Your task to perform on an android device: Go to Reddit.com Image 0: 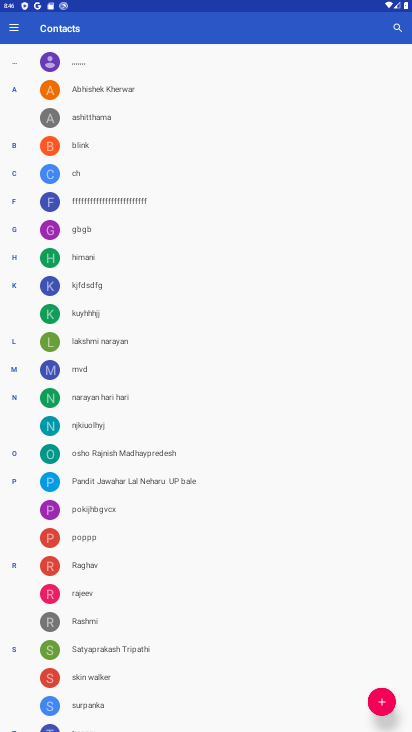
Step 0: press back button
Your task to perform on an android device: Go to Reddit.com Image 1: 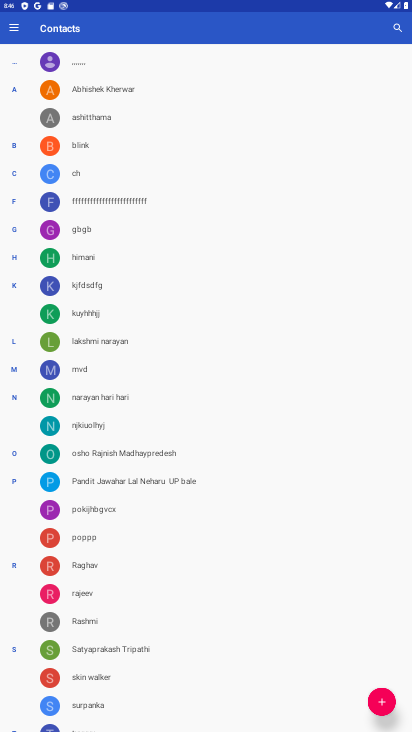
Step 1: press back button
Your task to perform on an android device: Go to Reddit.com Image 2: 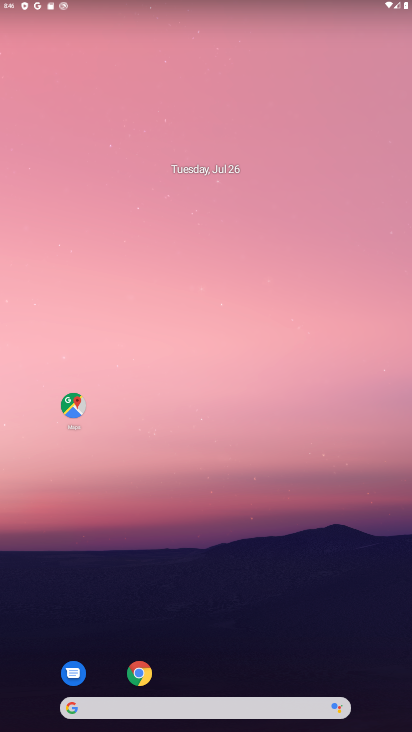
Step 2: drag from (171, 665) to (122, 264)
Your task to perform on an android device: Go to Reddit.com Image 3: 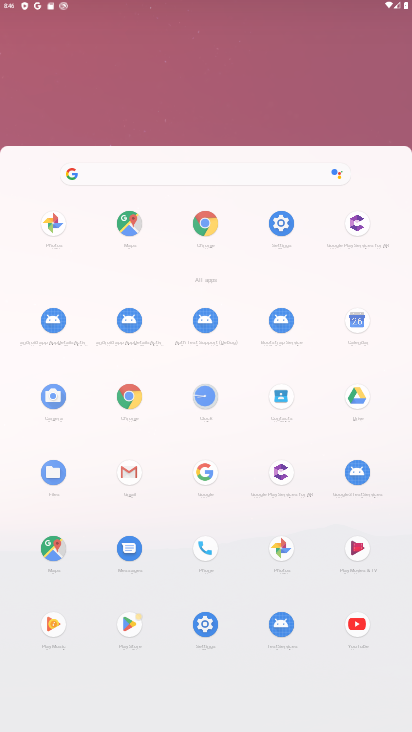
Step 3: drag from (273, 556) to (170, 34)
Your task to perform on an android device: Go to Reddit.com Image 4: 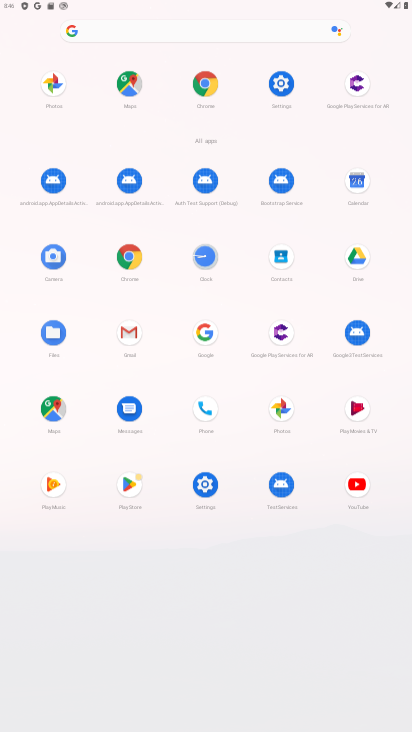
Step 4: drag from (264, 434) to (201, 62)
Your task to perform on an android device: Go to Reddit.com Image 5: 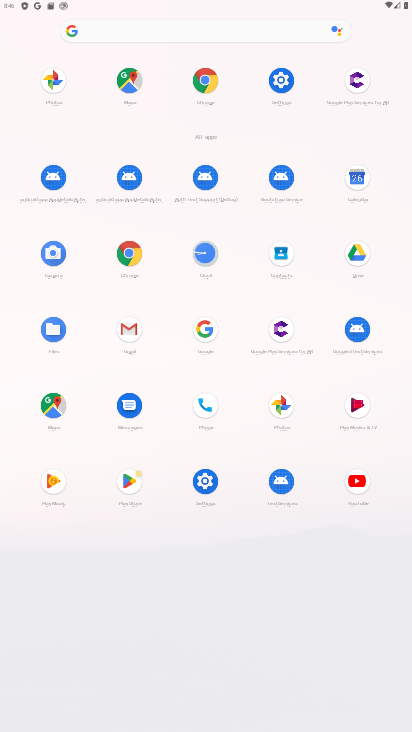
Step 5: click (203, 83)
Your task to perform on an android device: Go to Reddit.com Image 6: 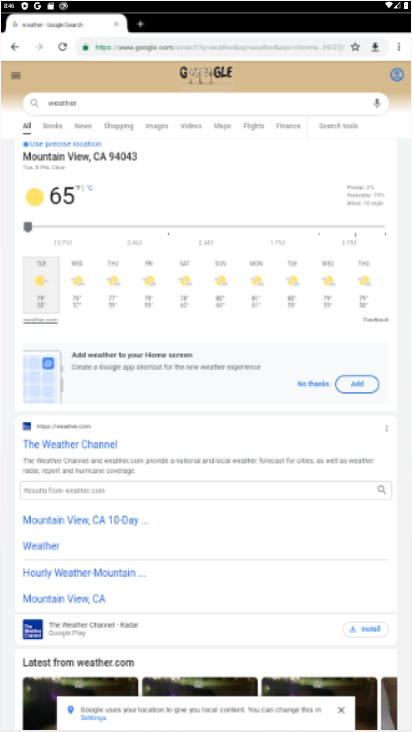
Step 6: click (213, 104)
Your task to perform on an android device: Go to Reddit.com Image 7: 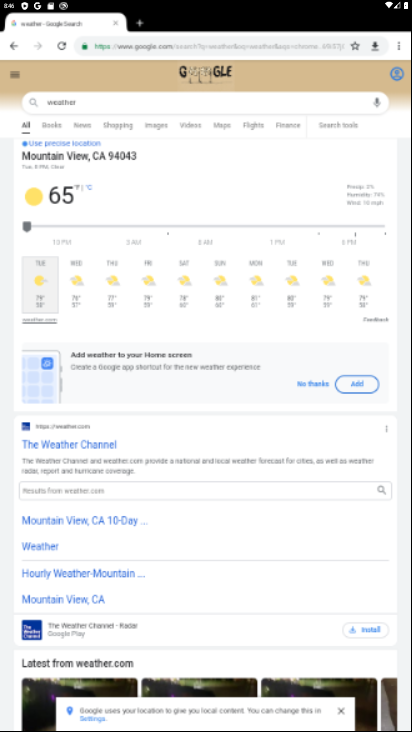
Step 7: click (212, 92)
Your task to perform on an android device: Go to Reddit.com Image 8: 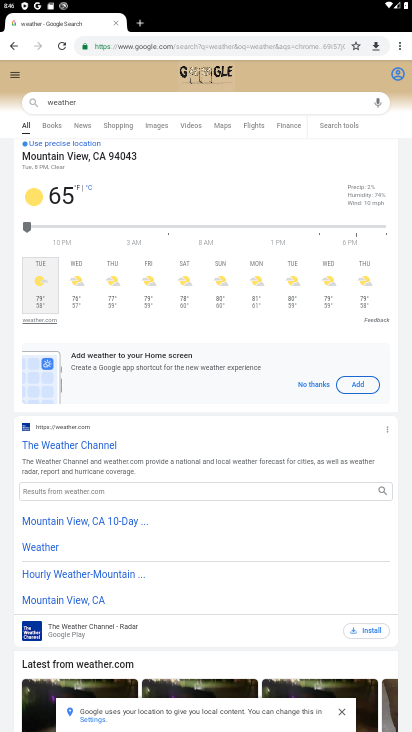
Step 8: click (398, 42)
Your task to perform on an android device: Go to Reddit.com Image 9: 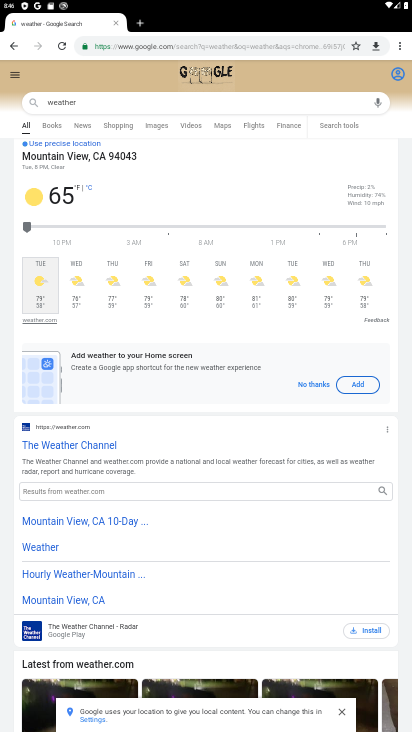
Step 9: click (398, 42)
Your task to perform on an android device: Go to Reddit.com Image 10: 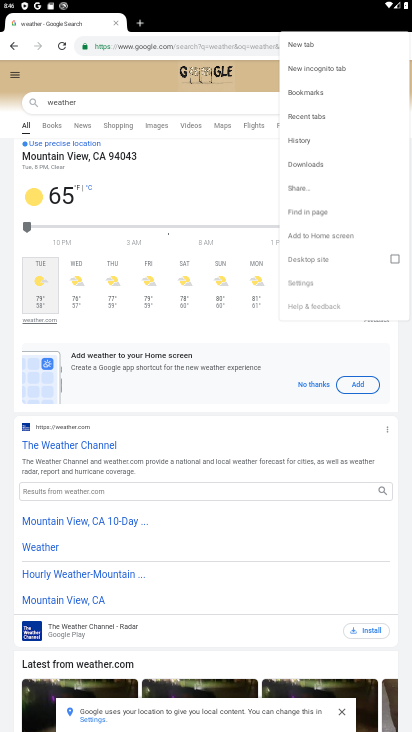
Step 10: click (398, 42)
Your task to perform on an android device: Go to Reddit.com Image 11: 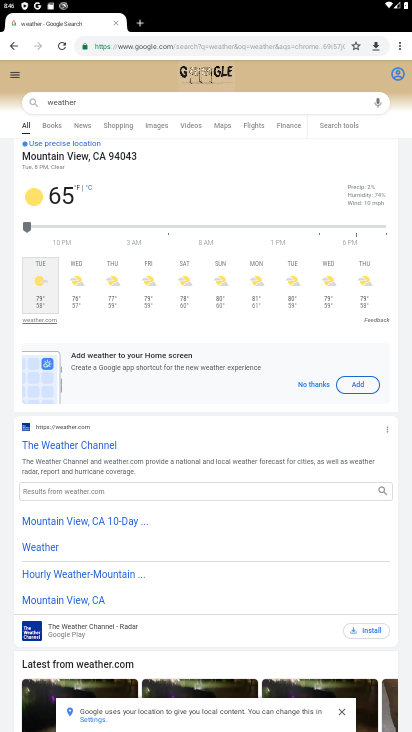
Step 11: click (308, 42)
Your task to perform on an android device: Go to Reddit.com Image 12: 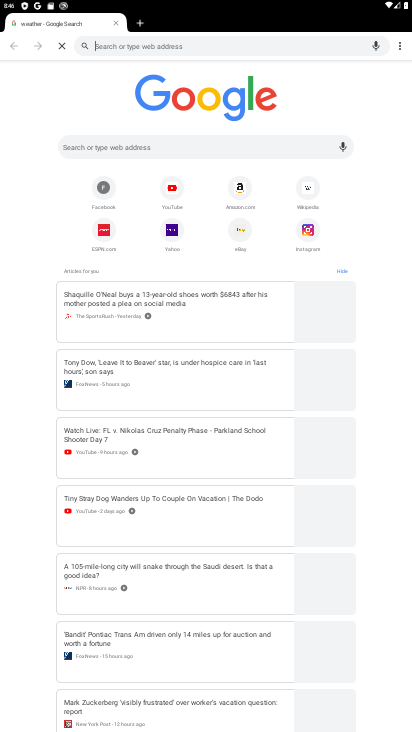
Step 12: click (308, 42)
Your task to perform on an android device: Go to Reddit.com Image 13: 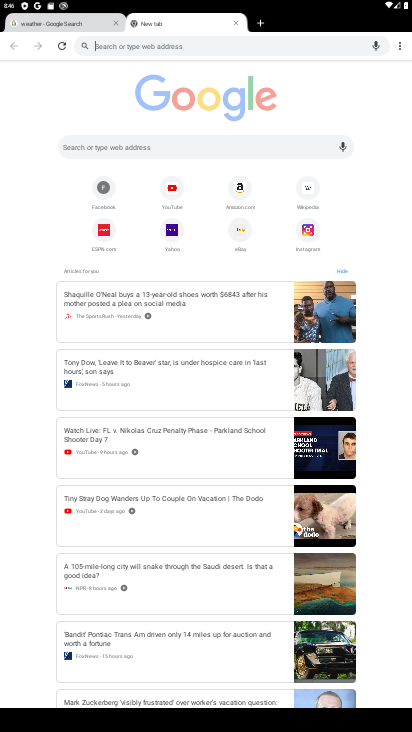
Step 13: click (164, 44)
Your task to perform on an android device: Go to Reddit.com Image 14: 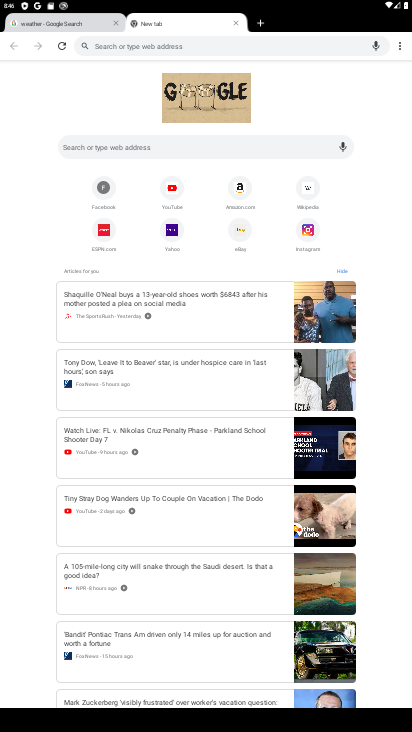
Step 14: click (164, 44)
Your task to perform on an android device: Go to Reddit.com Image 15: 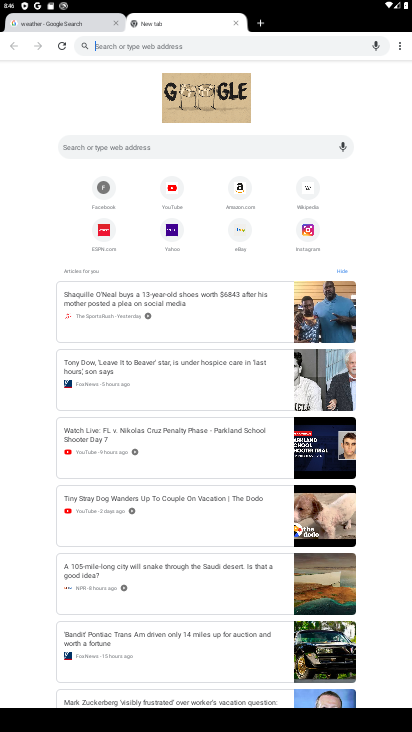
Step 15: click (163, 44)
Your task to perform on an android device: Go to Reddit.com Image 16: 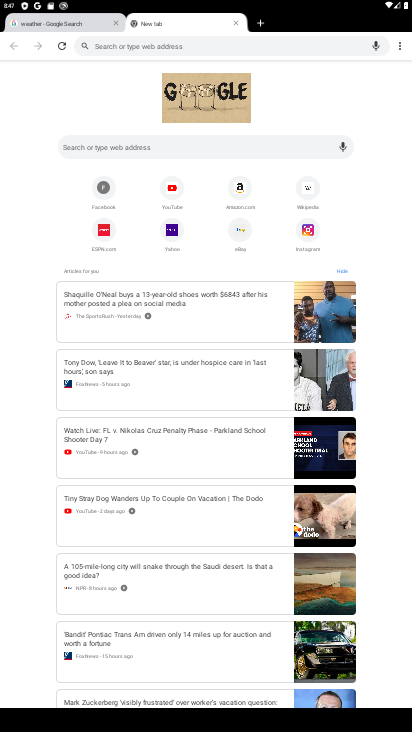
Step 16: type "reddit.com"
Your task to perform on an android device: Go to Reddit.com Image 17: 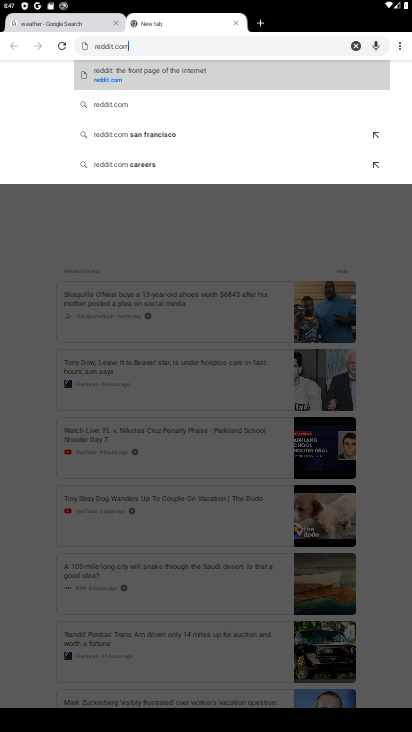
Step 17: click (114, 69)
Your task to perform on an android device: Go to Reddit.com Image 18: 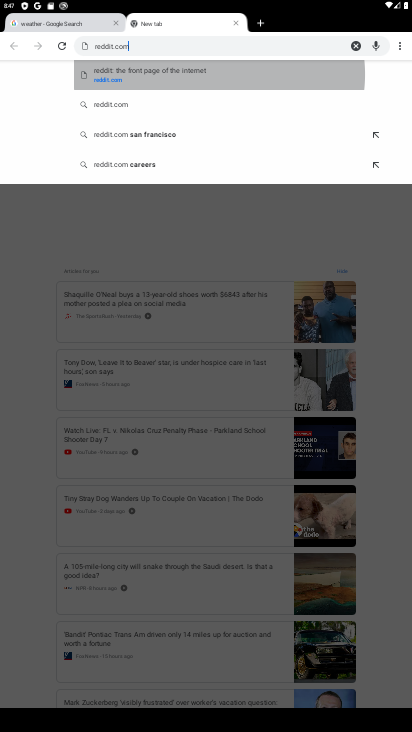
Step 18: click (116, 75)
Your task to perform on an android device: Go to Reddit.com Image 19: 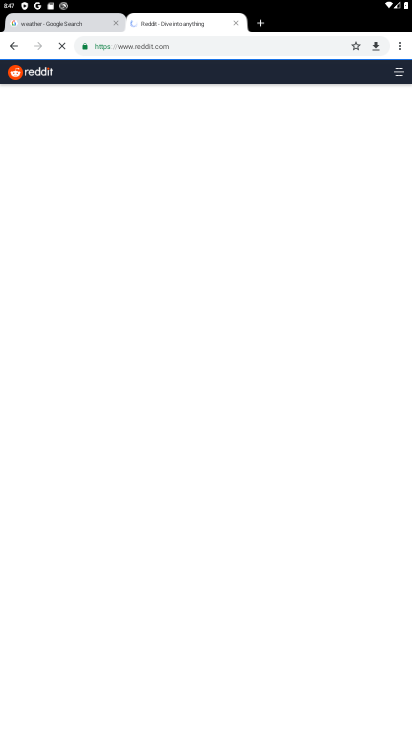
Step 19: task complete